Your task to perform on an android device: turn on javascript in the chrome app Image 0: 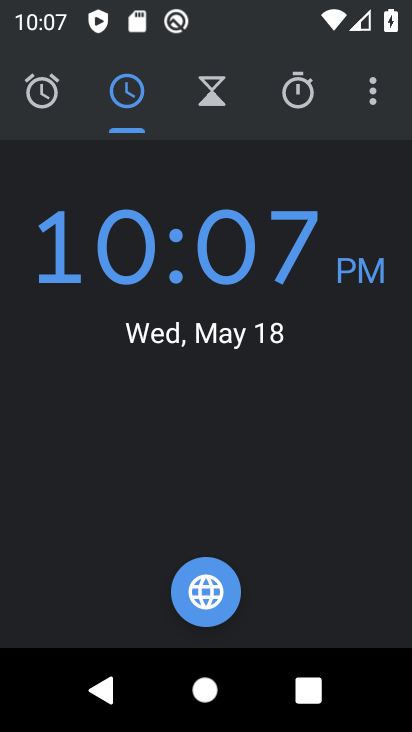
Step 0: press home button
Your task to perform on an android device: turn on javascript in the chrome app Image 1: 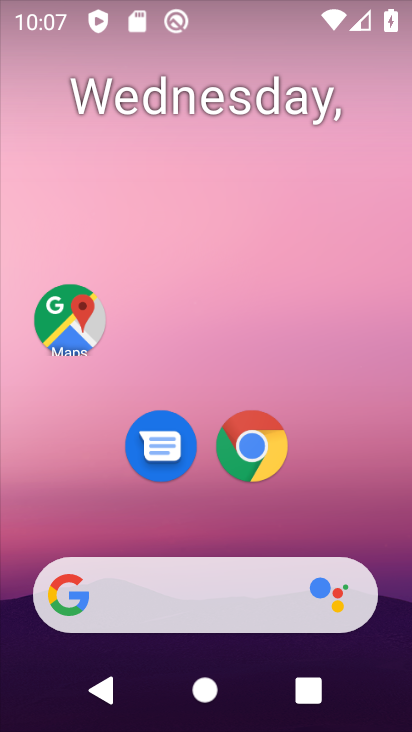
Step 1: click (263, 445)
Your task to perform on an android device: turn on javascript in the chrome app Image 2: 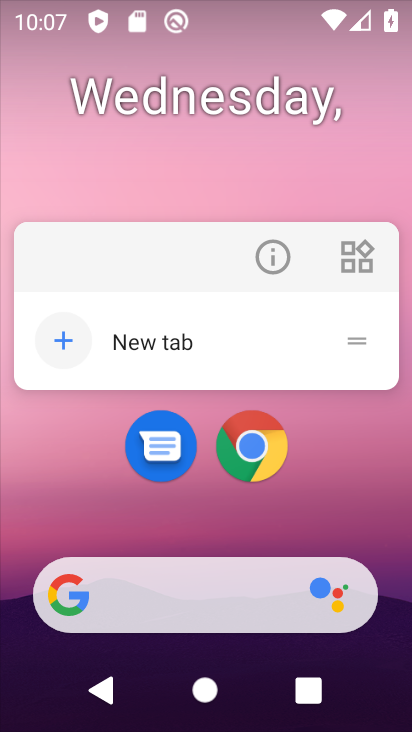
Step 2: click (272, 470)
Your task to perform on an android device: turn on javascript in the chrome app Image 3: 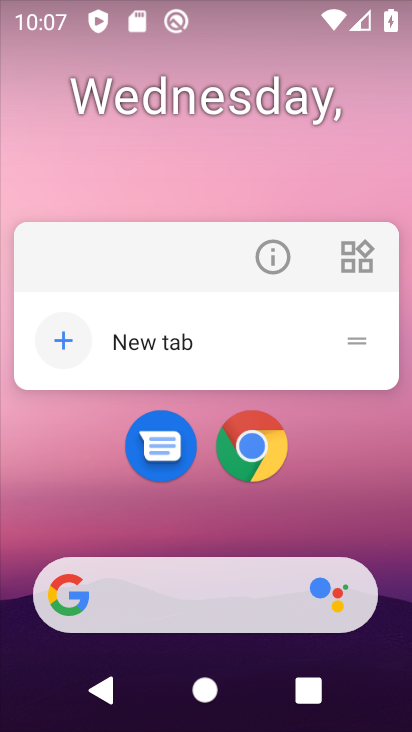
Step 3: click (273, 451)
Your task to perform on an android device: turn on javascript in the chrome app Image 4: 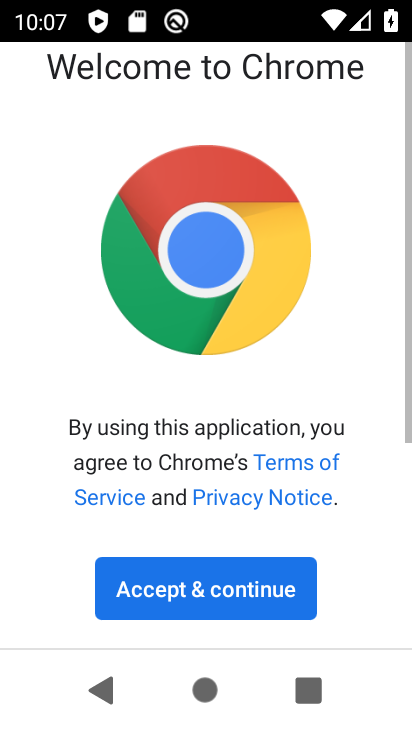
Step 4: click (229, 594)
Your task to perform on an android device: turn on javascript in the chrome app Image 5: 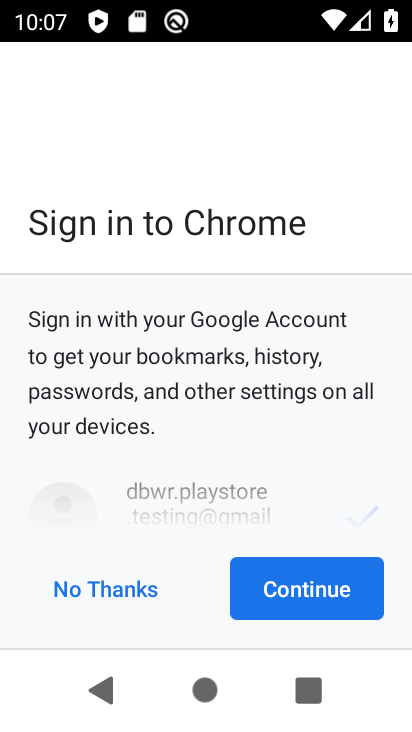
Step 5: click (298, 585)
Your task to perform on an android device: turn on javascript in the chrome app Image 6: 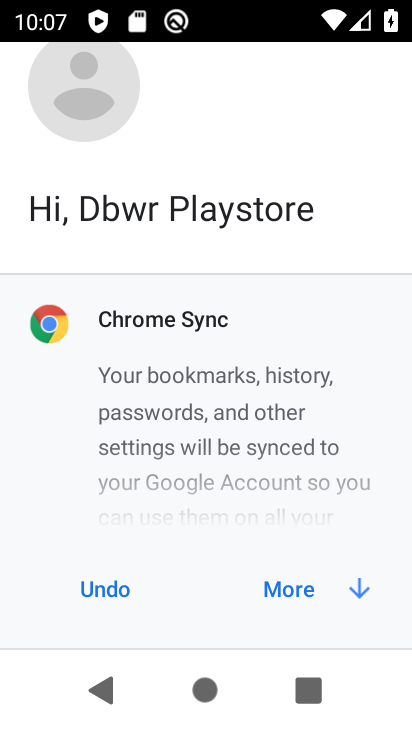
Step 6: click (298, 585)
Your task to perform on an android device: turn on javascript in the chrome app Image 7: 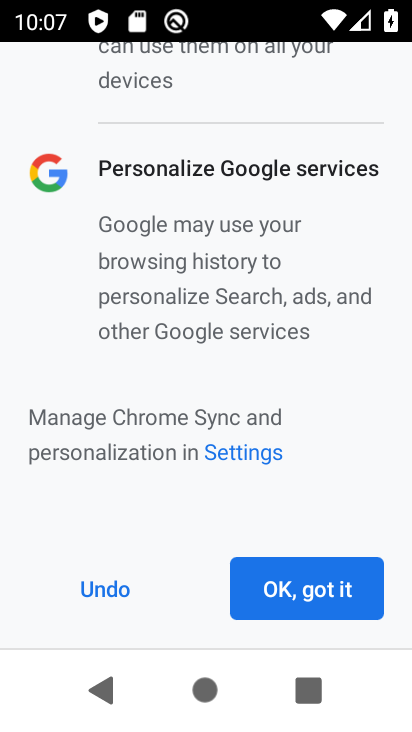
Step 7: click (298, 585)
Your task to perform on an android device: turn on javascript in the chrome app Image 8: 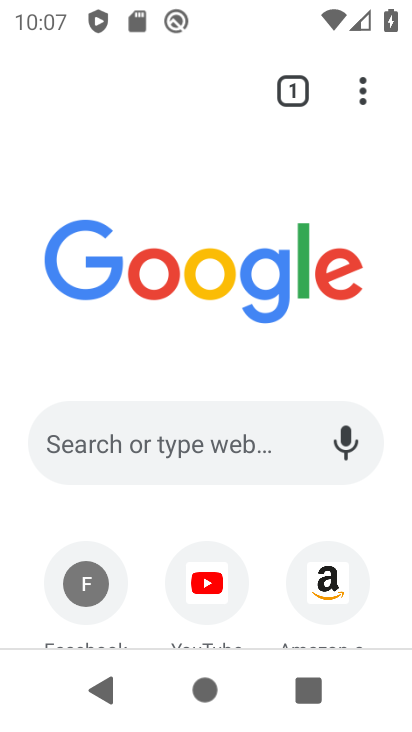
Step 8: click (367, 94)
Your task to perform on an android device: turn on javascript in the chrome app Image 9: 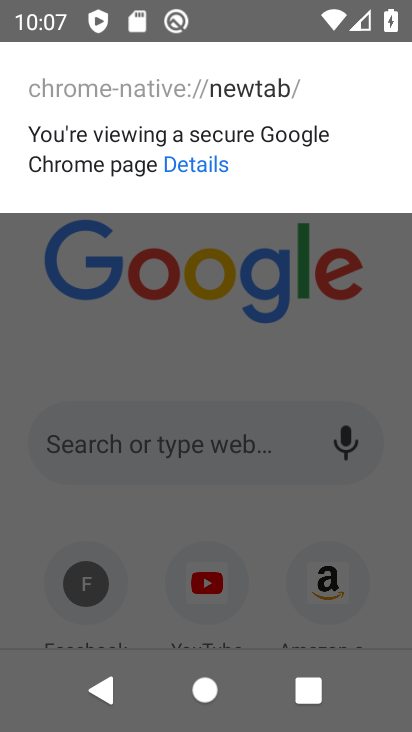
Step 9: click (227, 358)
Your task to perform on an android device: turn on javascript in the chrome app Image 10: 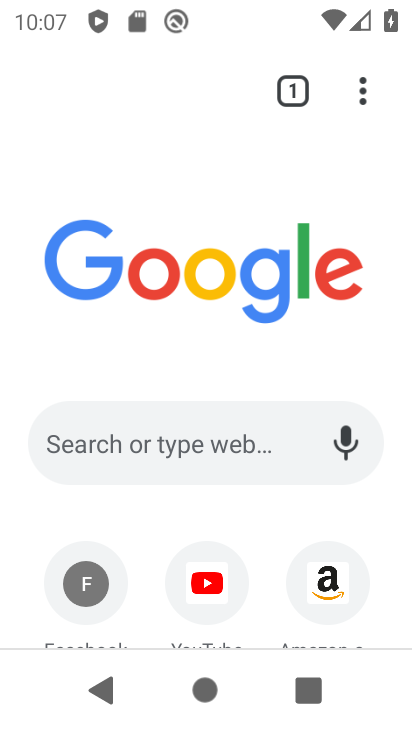
Step 10: drag from (367, 98) to (108, 474)
Your task to perform on an android device: turn on javascript in the chrome app Image 11: 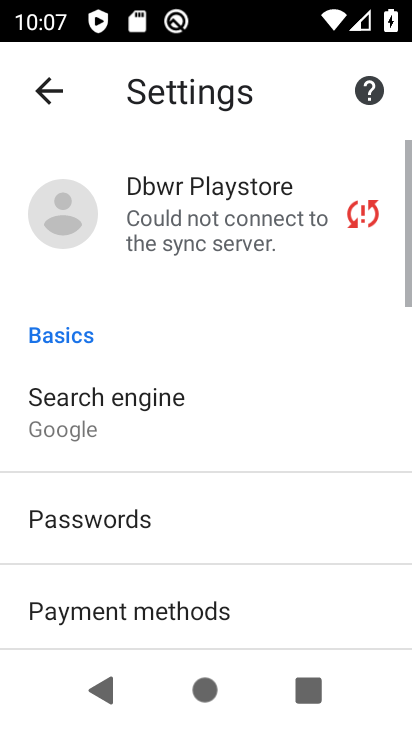
Step 11: drag from (162, 629) to (226, 227)
Your task to perform on an android device: turn on javascript in the chrome app Image 12: 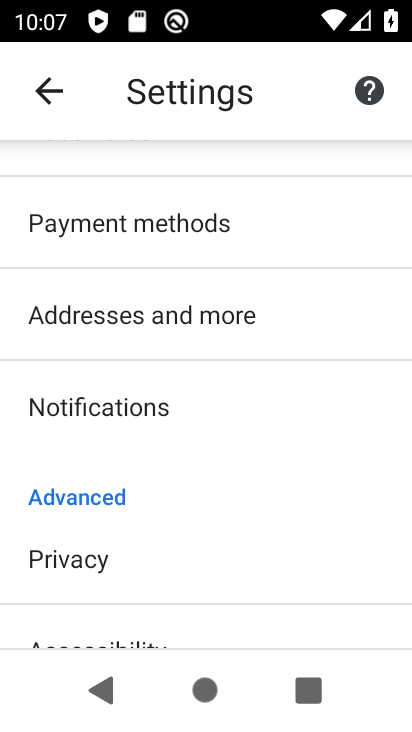
Step 12: drag from (182, 588) to (234, 233)
Your task to perform on an android device: turn on javascript in the chrome app Image 13: 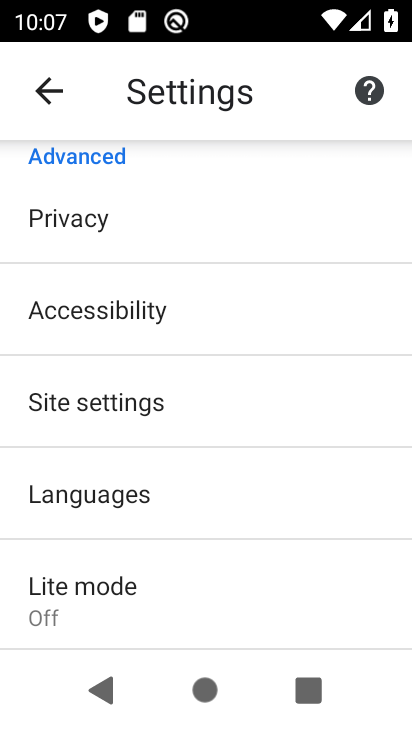
Step 13: drag from (161, 623) to (113, 456)
Your task to perform on an android device: turn on javascript in the chrome app Image 14: 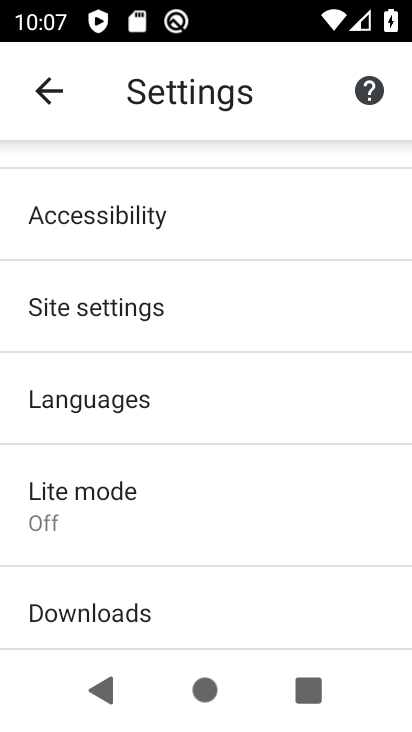
Step 14: click (114, 310)
Your task to perform on an android device: turn on javascript in the chrome app Image 15: 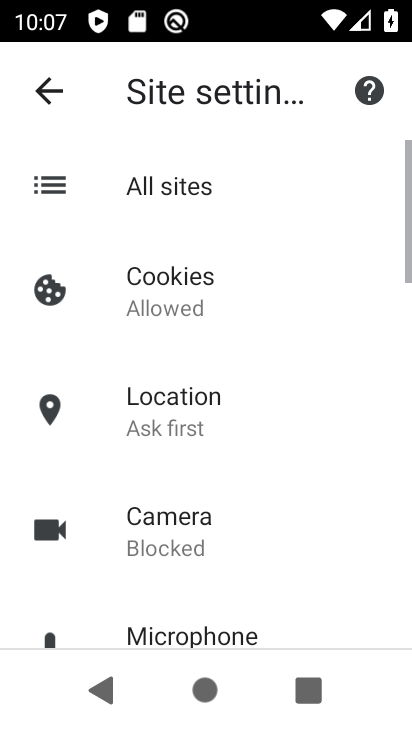
Step 15: drag from (261, 622) to (295, 291)
Your task to perform on an android device: turn on javascript in the chrome app Image 16: 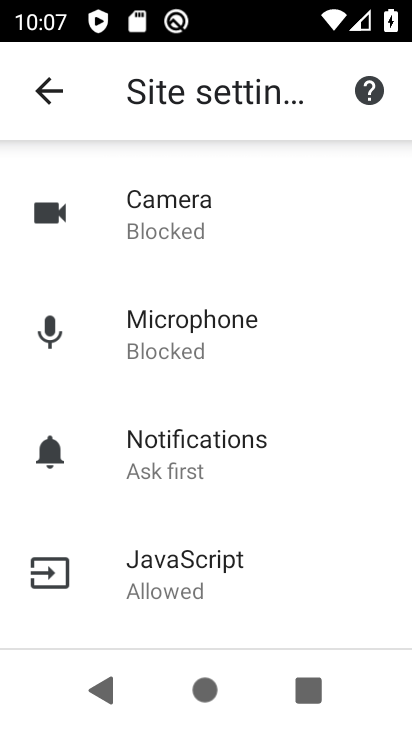
Step 16: click (216, 580)
Your task to perform on an android device: turn on javascript in the chrome app Image 17: 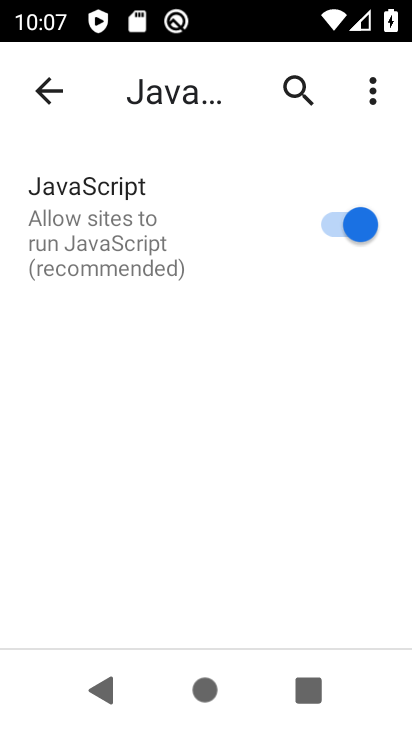
Step 17: task complete